Your task to perform on an android device: What's the weather? Image 0: 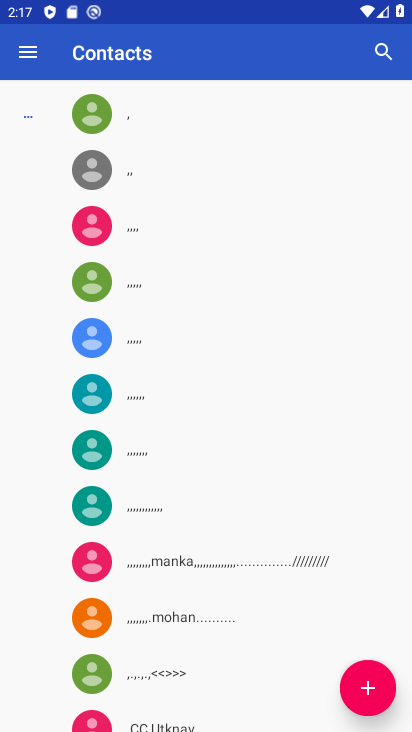
Step 0: press home button
Your task to perform on an android device: What's the weather? Image 1: 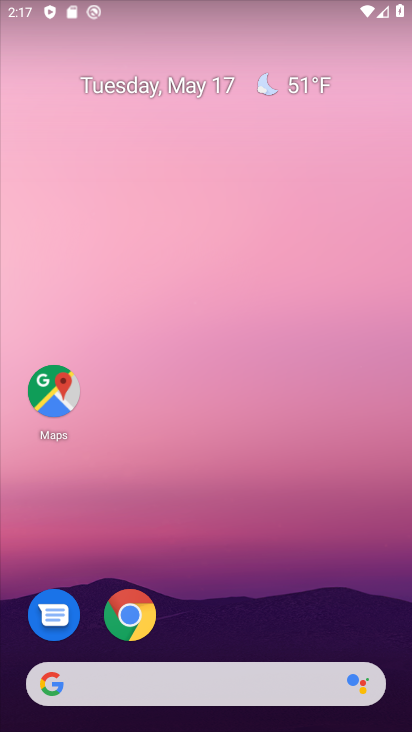
Step 1: click (296, 76)
Your task to perform on an android device: What's the weather? Image 2: 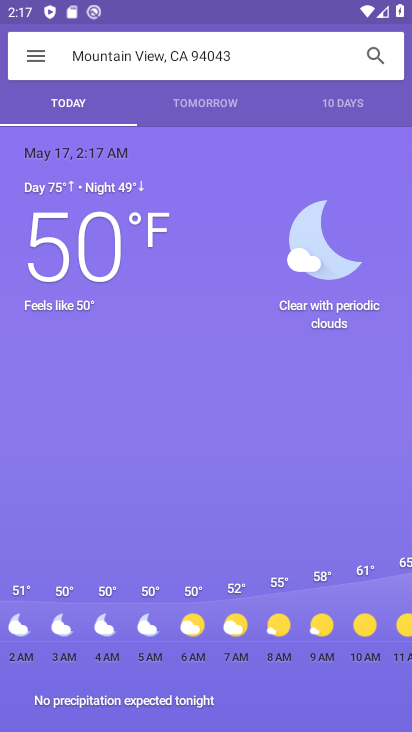
Step 2: task complete